Your task to perform on an android device: show emergency info Image 0: 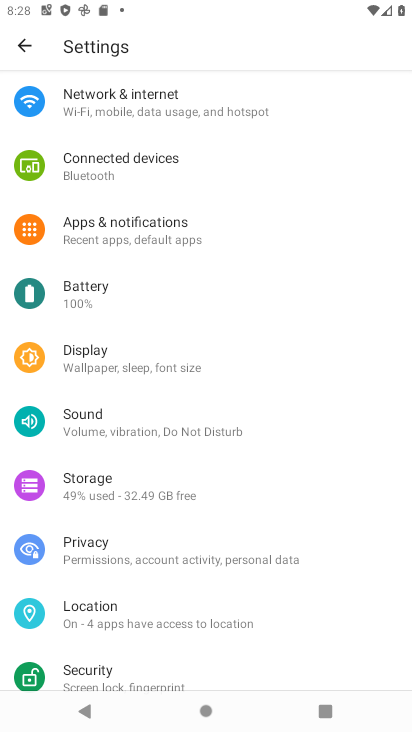
Step 0: drag from (117, 535) to (148, 24)
Your task to perform on an android device: show emergency info Image 1: 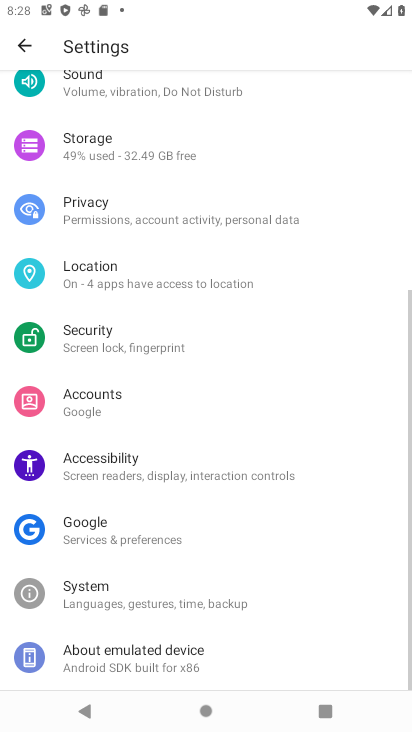
Step 1: drag from (213, 552) to (318, 20)
Your task to perform on an android device: show emergency info Image 2: 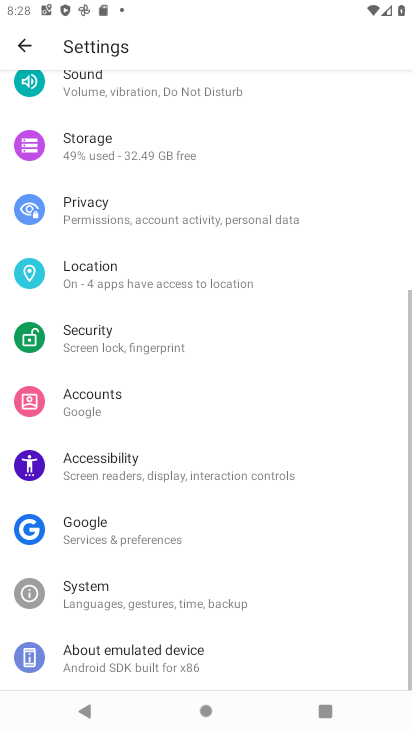
Step 2: click (178, 669)
Your task to perform on an android device: show emergency info Image 3: 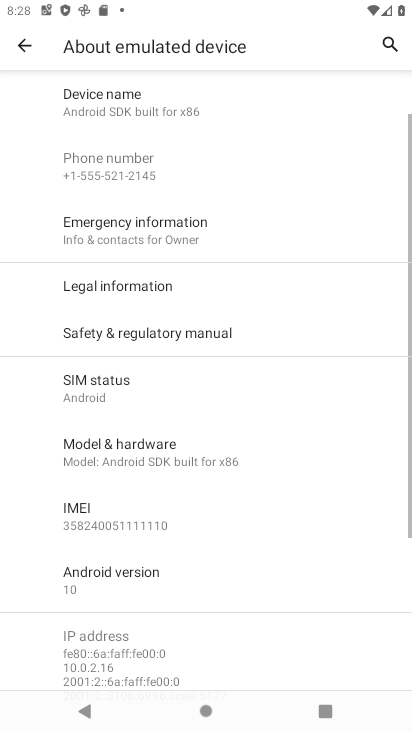
Step 3: click (187, 234)
Your task to perform on an android device: show emergency info Image 4: 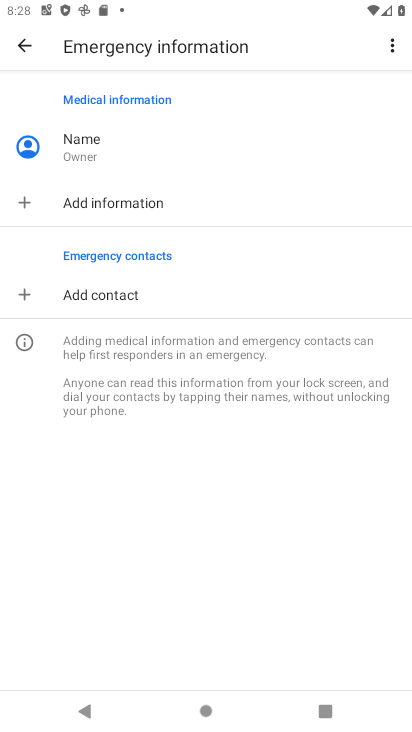
Step 4: task complete